Your task to perform on an android device: stop showing notifications on the lock screen Image 0: 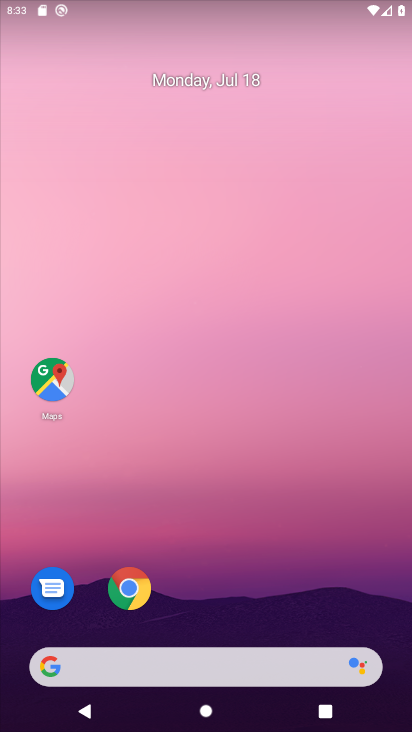
Step 0: drag from (194, 652) to (311, 46)
Your task to perform on an android device: stop showing notifications on the lock screen Image 1: 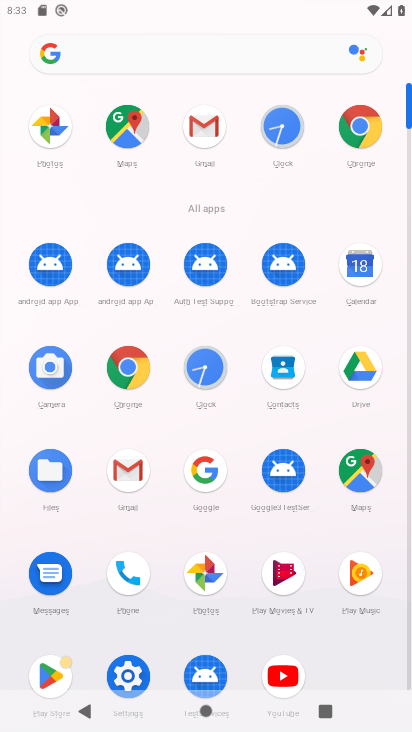
Step 1: click (130, 666)
Your task to perform on an android device: stop showing notifications on the lock screen Image 2: 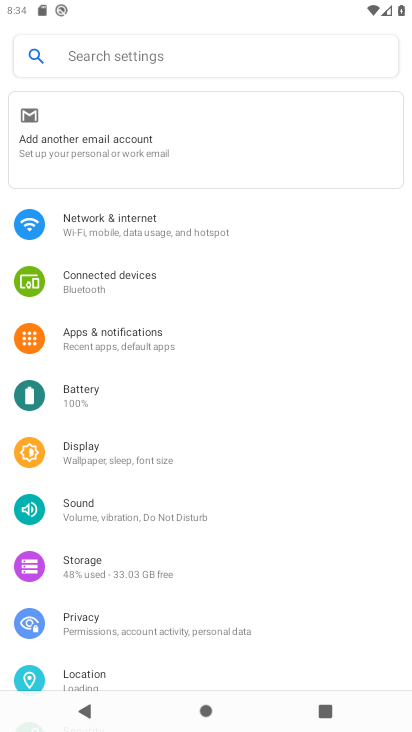
Step 2: click (120, 335)
Your task to perform on an android device: stop showing notifications on the lock screen Image 3: 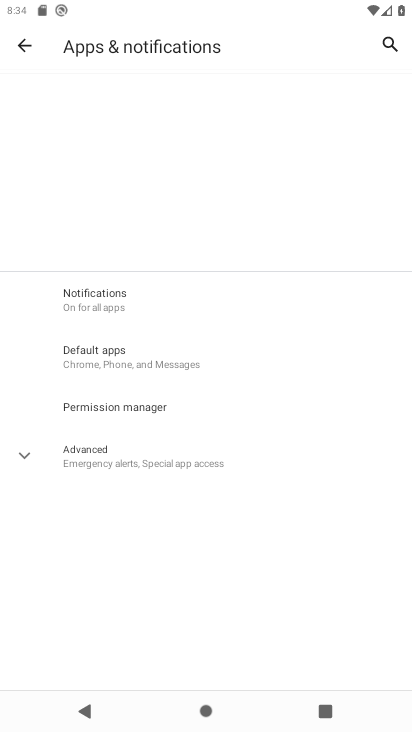
Step 3: click (138, 299)
Your task to perform on an android device: stop showing notifications on the lock screen Image 4: 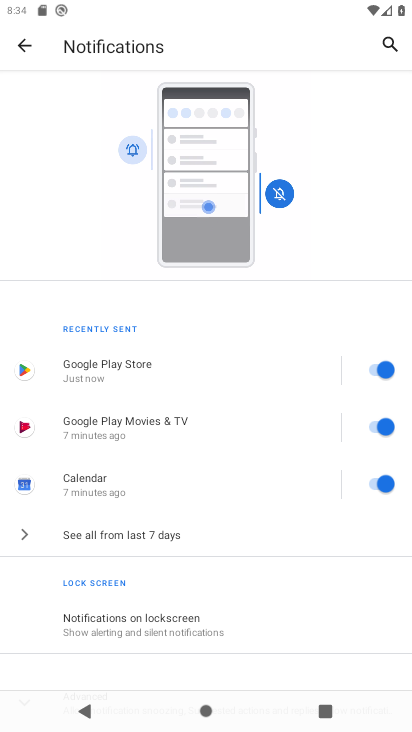
Step 4: click (171, 624)
Your task to perform on an android device: stop showing notifications on the lock screen Image 5: 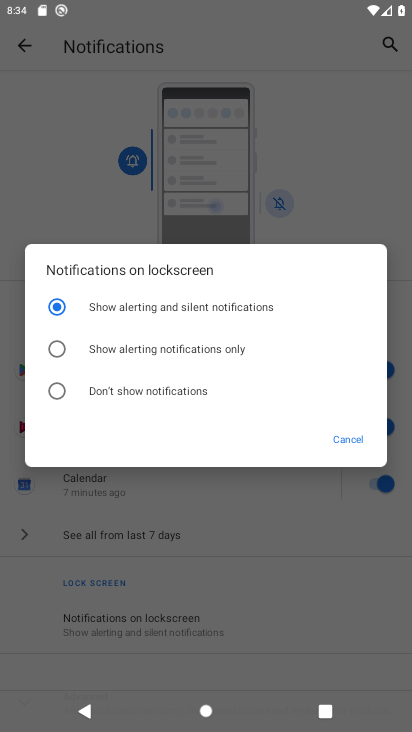
Step 5: click (133, 388)
Your task to perform on an android device: stop showing notifications on the lock screen Image 6: 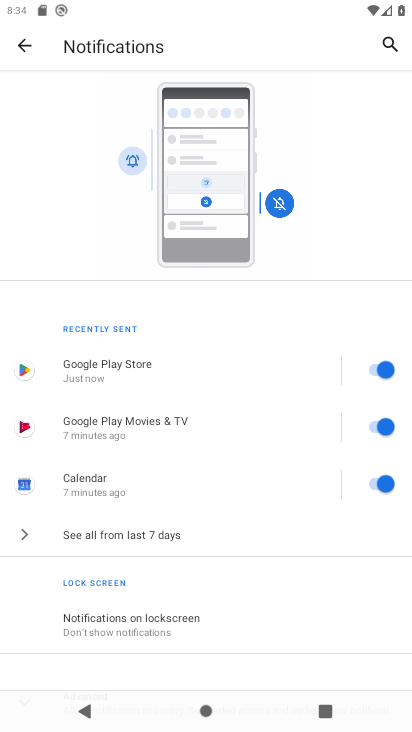
Step 6: task complete